Your task to perform on an android device: Open the calendar and show me this week's events Image 0: 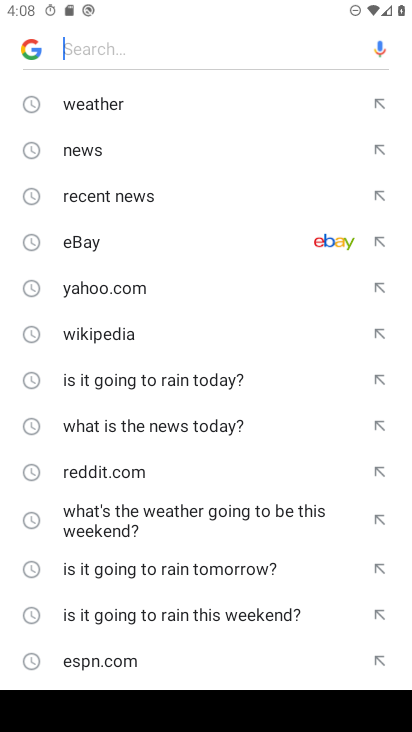
Step 0: press home button
Your task to perform on an android device: Open the calendar and show me this week's events Image 1: 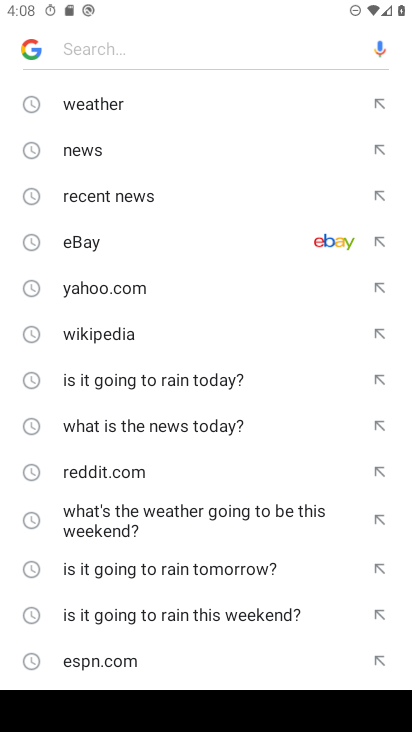
Step 1: press home button
Your task to perform on an android device: Open the calendar and show me this week's events Image 2: 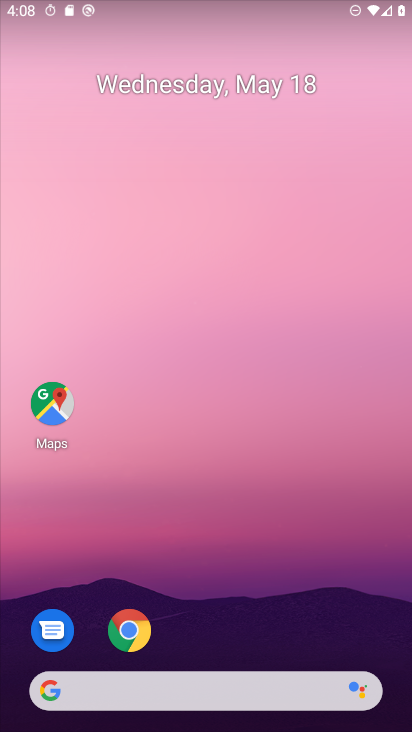
Step 2: drag from (213, 642) to (219, 480)
Your task to perform on an android device: Open the calendar and show me this week's events Image 3: 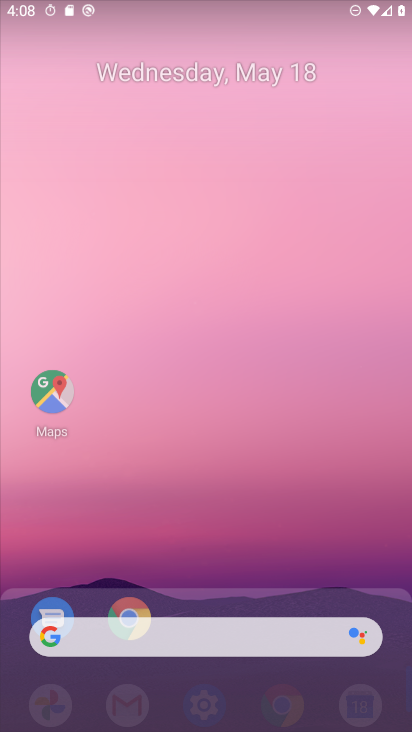
Step 3: click (222, 85)
Your task to perform on an android device: Open the calendar and show me this week's events Image 4: 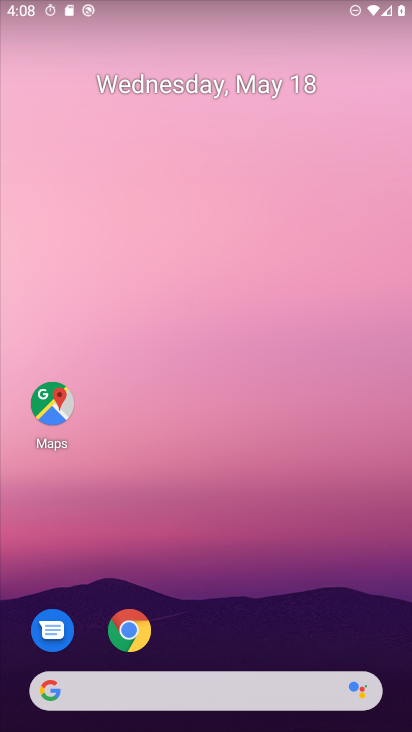
Step 4: drag from (216, 644) to (214, 59)
Your task to perform on an android device: Open the calendar and show me this week's events Image 5: 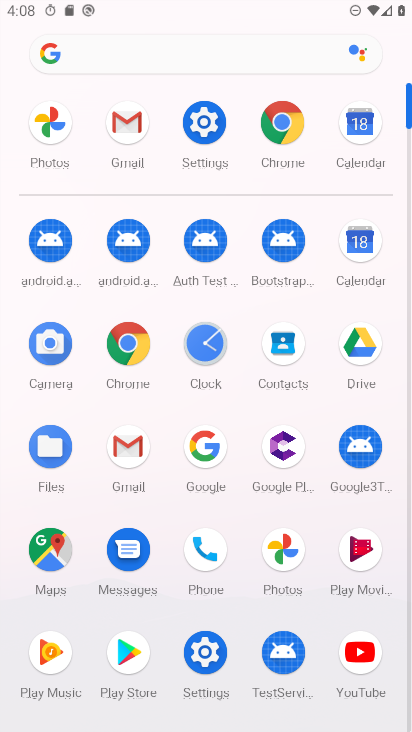
Step 5: click (358, 232)
Your task to perform on an android device: Open the calendar and show me this week's events Image 6: 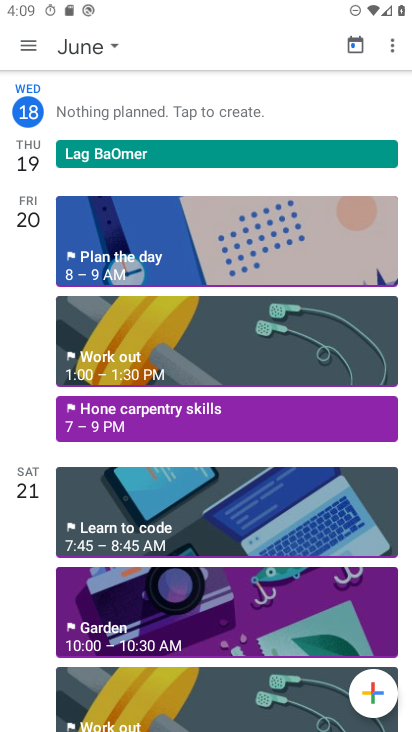
Step 6: click (108, 45)
Your task to perform on an android device: Open the calendar and show me this week's events Image 7: 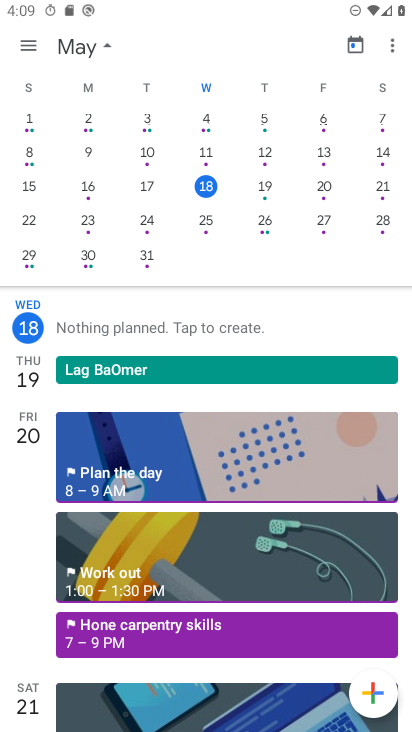
Step 7: click (203, 187)
Your task to perform on an android device: Open the calendar and show me this week's events Image 8: 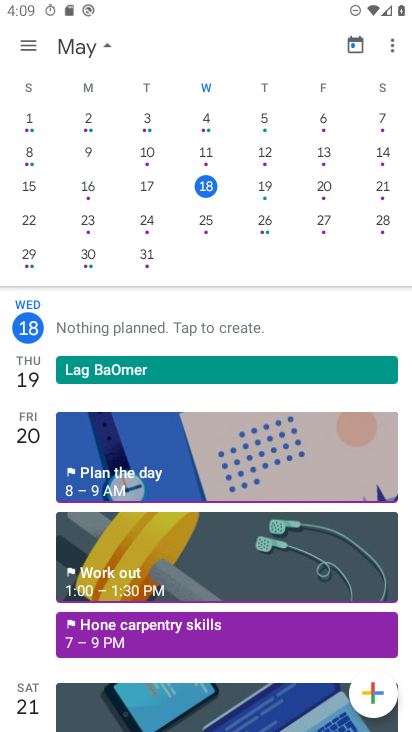
Step 8: click (109, 41)
Your task to perform on an android device: Open the calendar and show me this week's events Image 9: 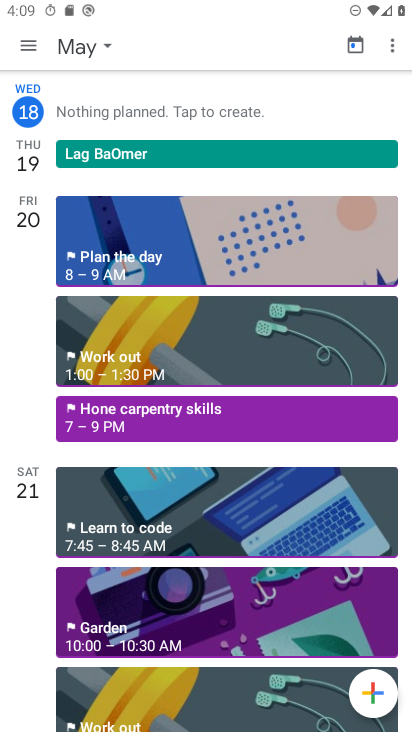
Step 9: task complete